Your task to perform on an android device: Go to Amazon Image 0: 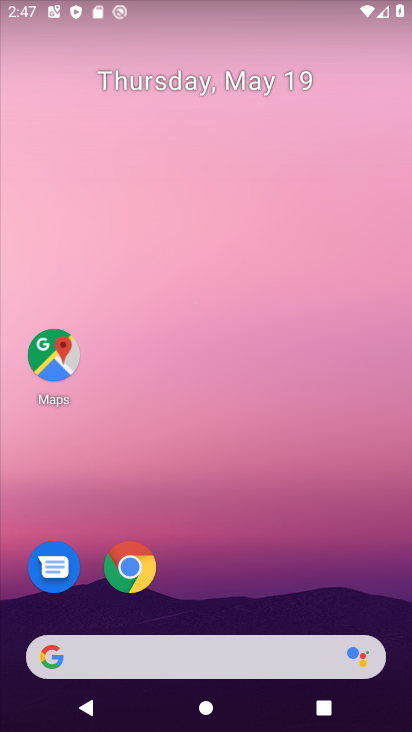
Step 0: click (132, 561)
Your task to perform on an android device: Go to Amazon Image 1: 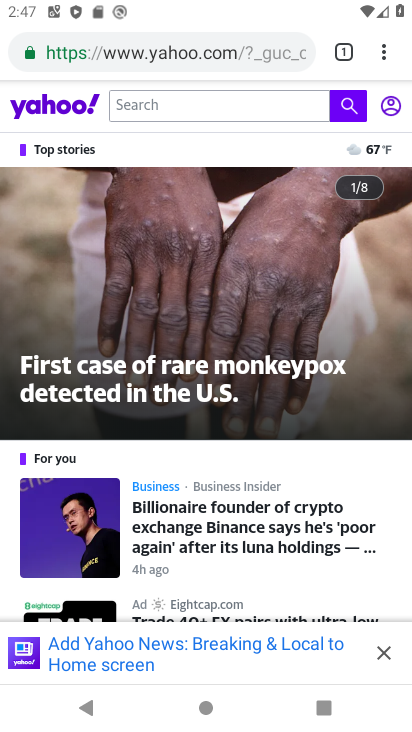
Step 1: click (387, 61)
Your task to perform on an android device: Go to Amazon Image 2: 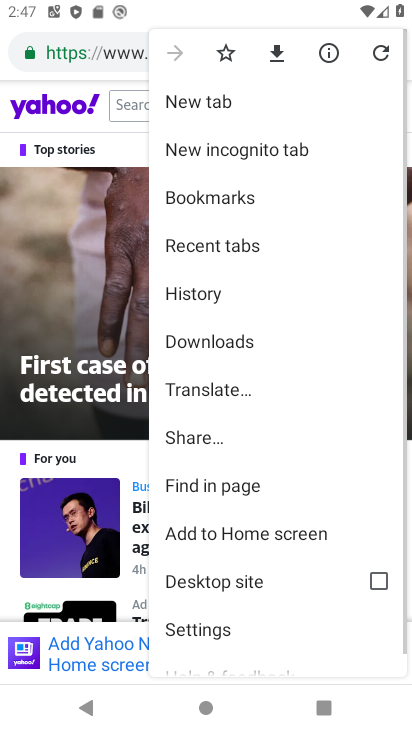
Step 2: click (232, 103)
Your task to perform on an android device: Go to Amazon Image 3: 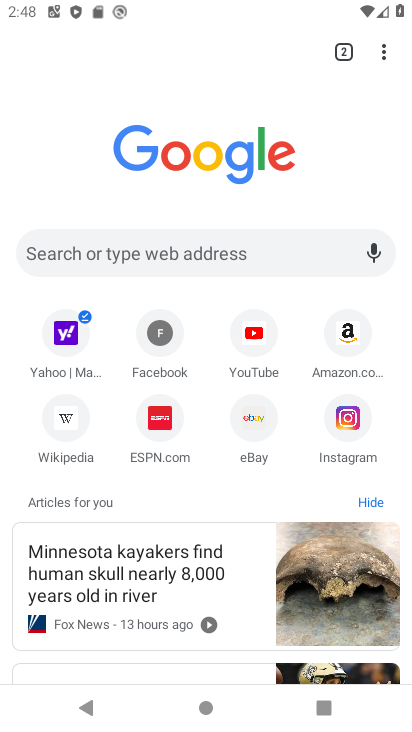
Step 3: click (250, 249)
Your task to perform on an android device: Go to Amazon Image 4: 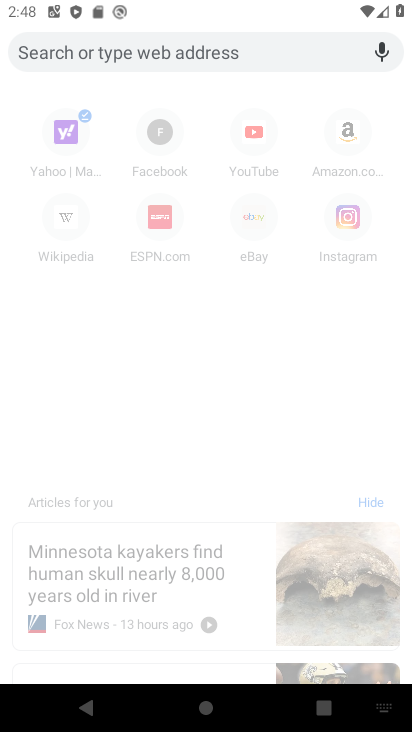
Step 4: type "Amazon"
Your task to perform on an android device: Go to Amazon Image 5: 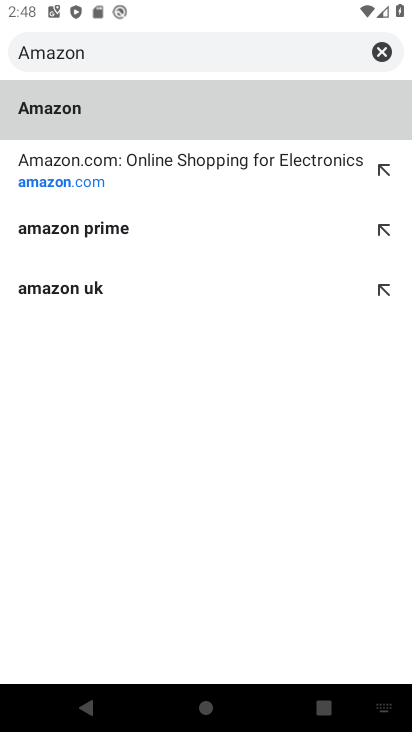
Step 5: click (78, 100)
Your task to perform on an android device: Go to Amazon Image 6: 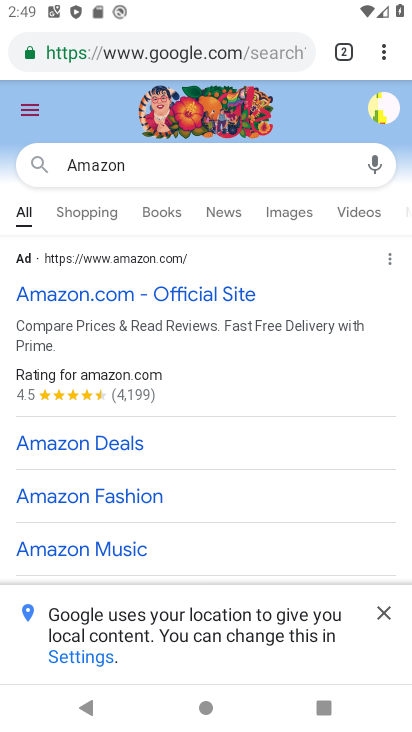
Step 6: click (106, 294)
Your task to perform on an android device: Go to Amazon Image 7: 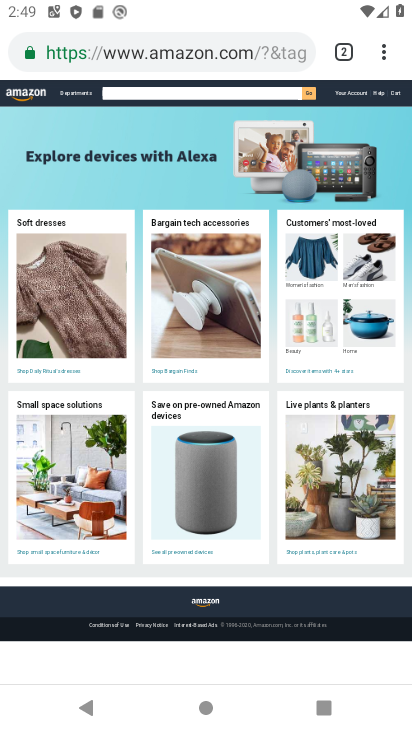
Step 7: task complete